Your task to perform on an android device: toggle notifications settings in the gmail app Image 0: 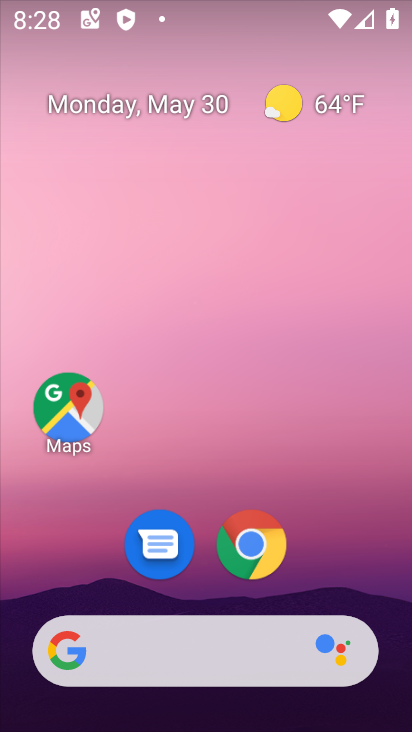
Step 0: drag from (227, 596) to (306, 71)
Your task to perform on an android device: toggle notifications settings in the gmail app Image 1: 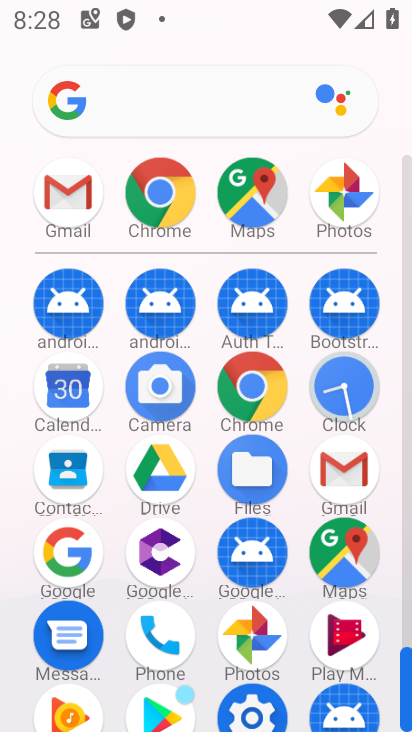
Step 1: click (348, 464)
Your task to perform on an android device: toggle notifications settings in the gmail app Image 2: 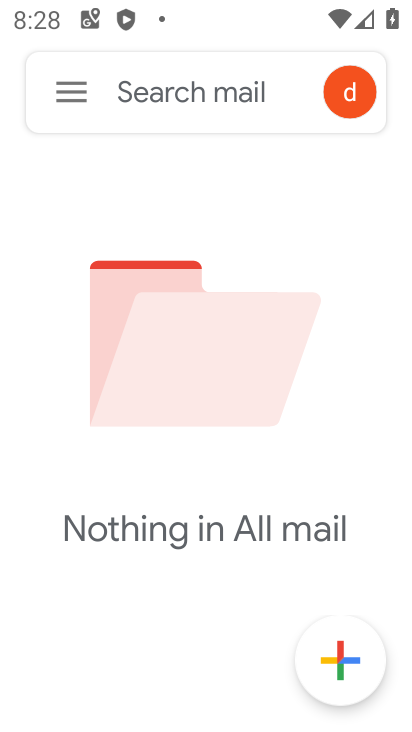
Step 2: click (65, 98)
Your task to perform on an android device: toggle notifications settings in the gmail app Image 3: 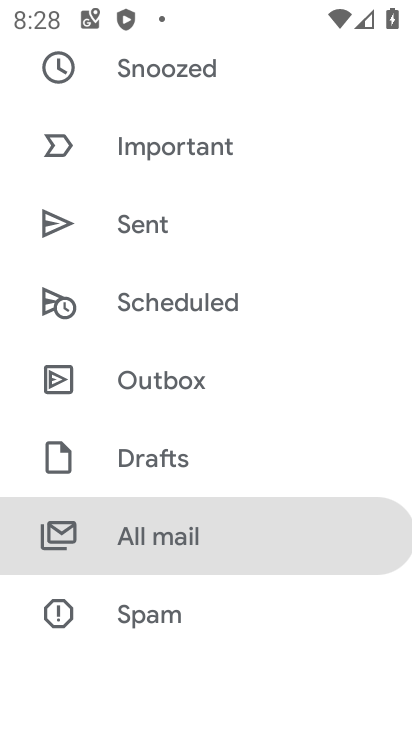
Step 3: drag from (151, 421) to (112, 0)
Your task to perform on an android device: toggle notifications settings in the gmail app Image 4: 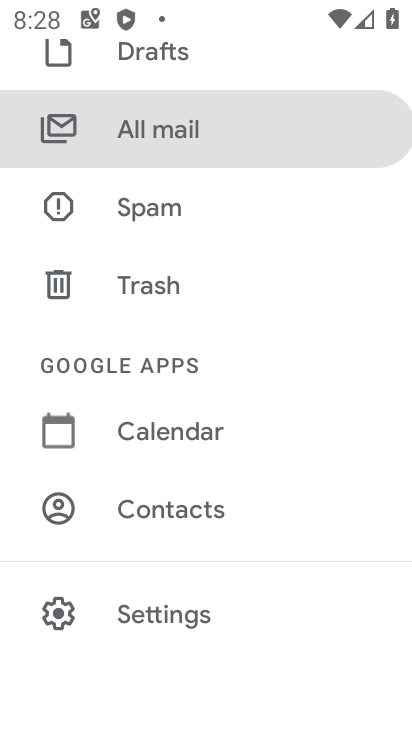
Step 4: click (157, 610)
Your task to perform on an android device: toggle notifications settings in the gmail app Image 5: 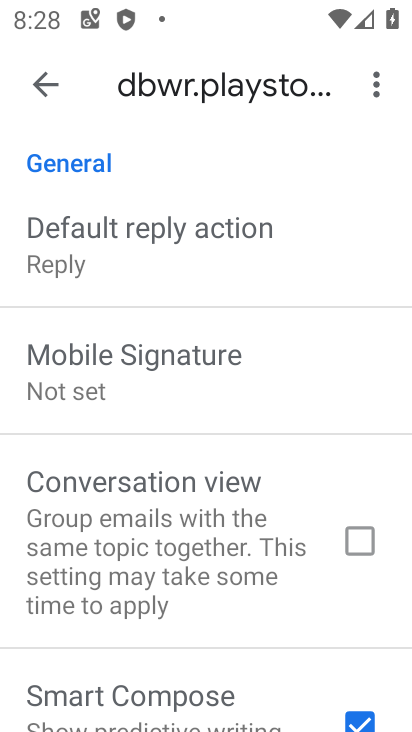
Step 5: click (50, 78)
Your task to perform on an android device: toggle notifications settings in the gmail app Image 6: 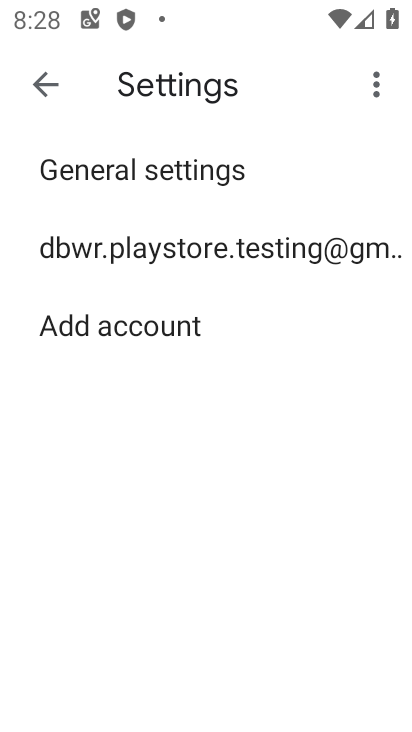
Step 6: click (87, 169)
Your task to perform on an android device: toggle notifications settings in the gmail app Image 7: 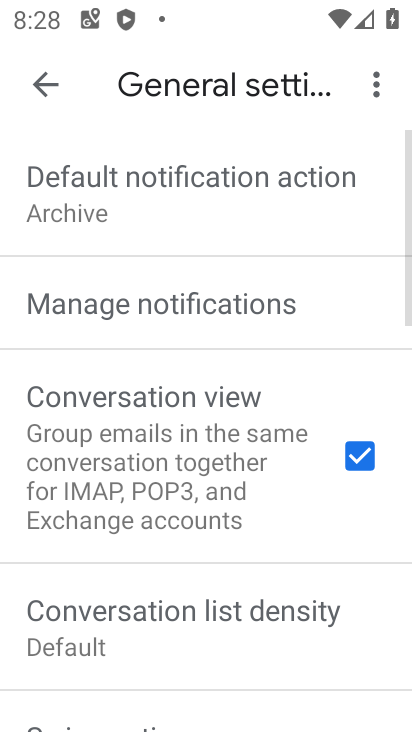
Step 7: click (160, 317)
Your task to perform on an android device: toggle notifications settings in the gmail app Image 8: 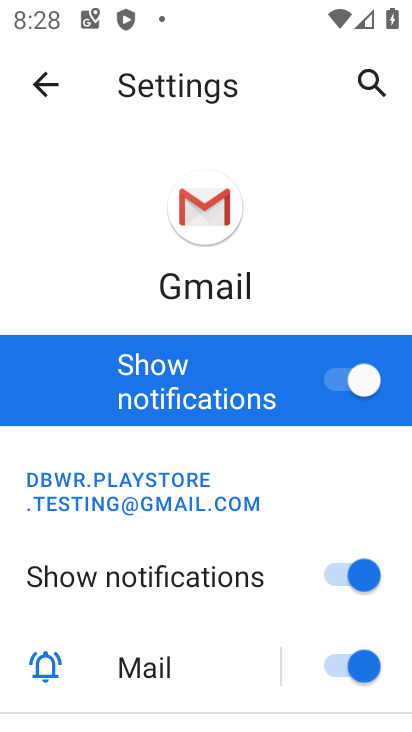
Step 8: click (336, 381)
Your task to perform on an android device: toggle notifications settings in the gmail app Image 9: 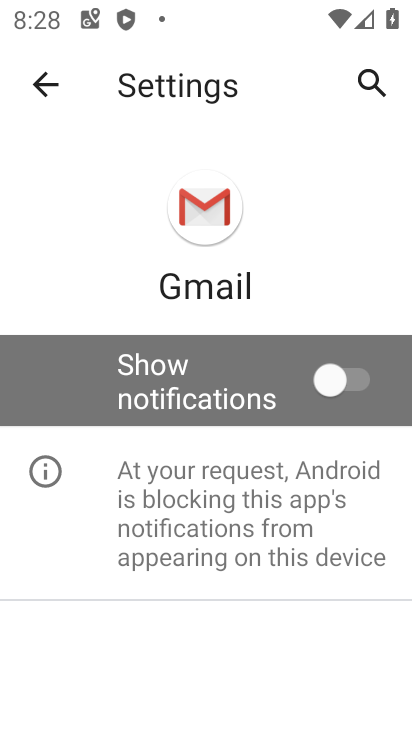
Step 9: task complete